Your task to perform on an android device: toggle notification dots Image 0: 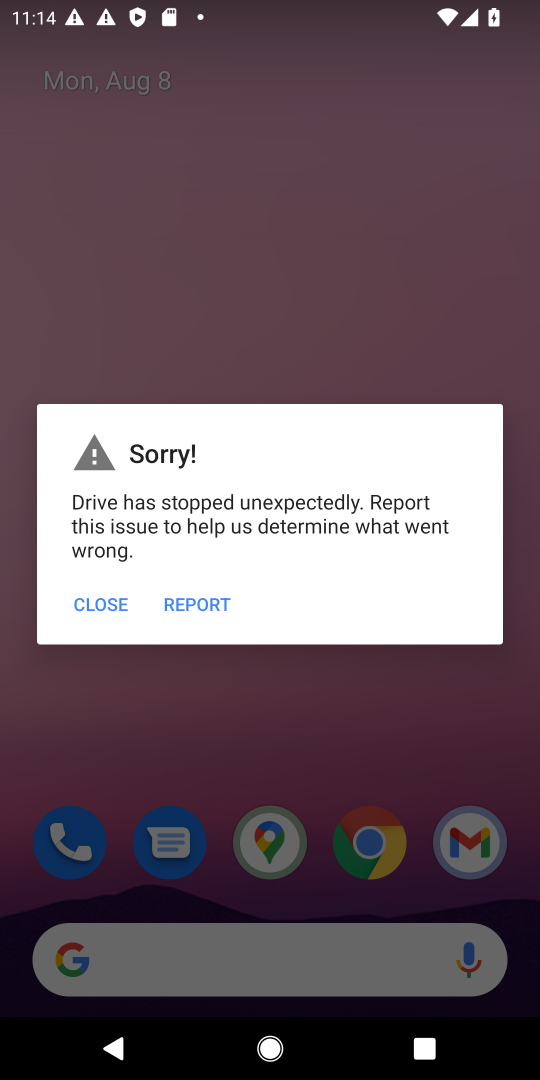
Step 0: task impossible